Your task to perform on an android device: Show me the alarms in the clock app Image 0: 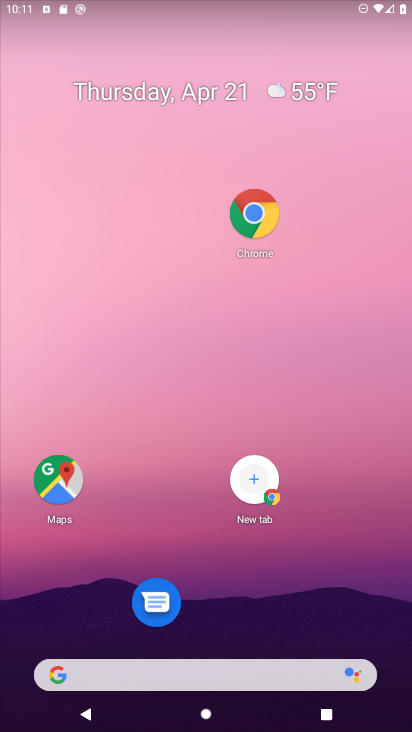
Step 0: drag from (240, 621) to (250, 37)
Your task to perform on an android device: Show me the alarms in the clock app Image 1: 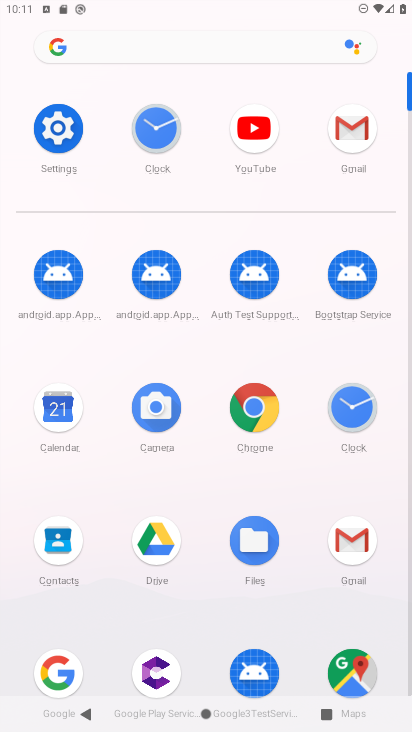
Step 1: click (370, 395)
Your task to perform on an android device: Show me the alarms in the clock app Image 2: 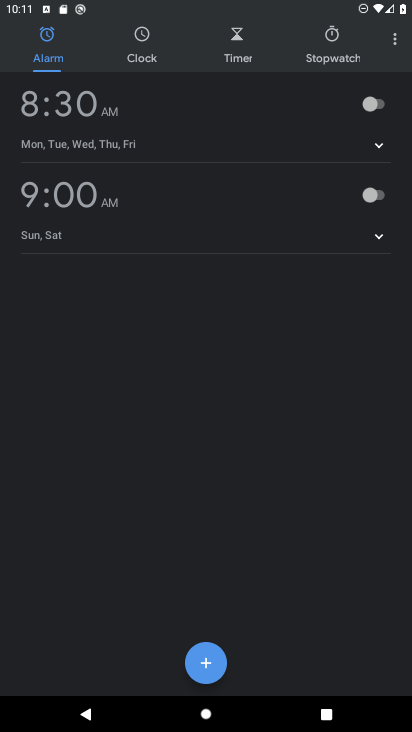
Step 2: task complete